Your task to perform on an android device: Open Reddit.com Image 0: 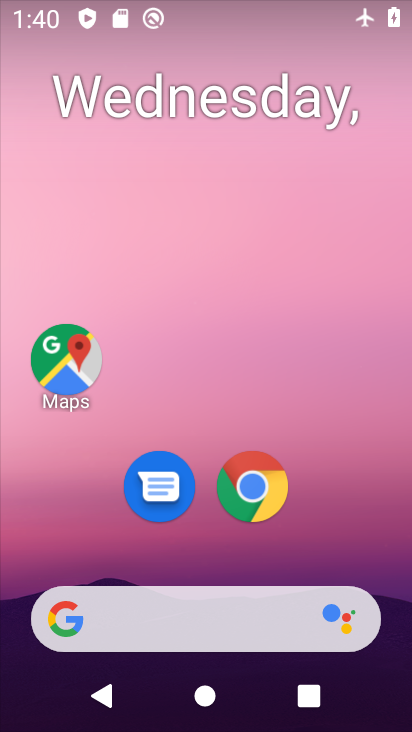
Step 0: click (247, 618)
Your task to perform on an android device: Open Reddit.com Image 1: 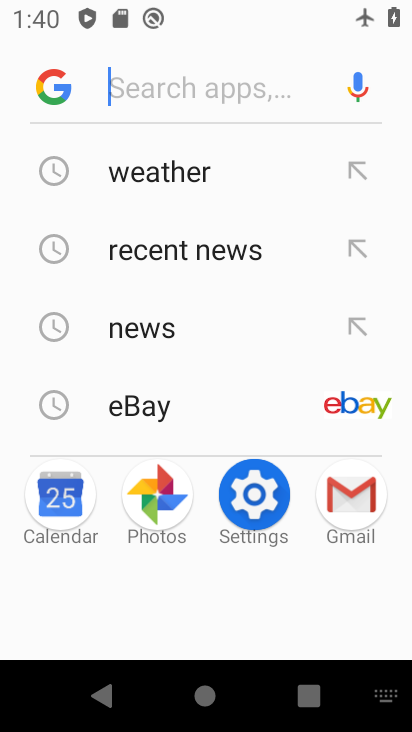
Step 1: type "reddit.com"
Your task to perform on an android device: Open Reddit.com Image 2: 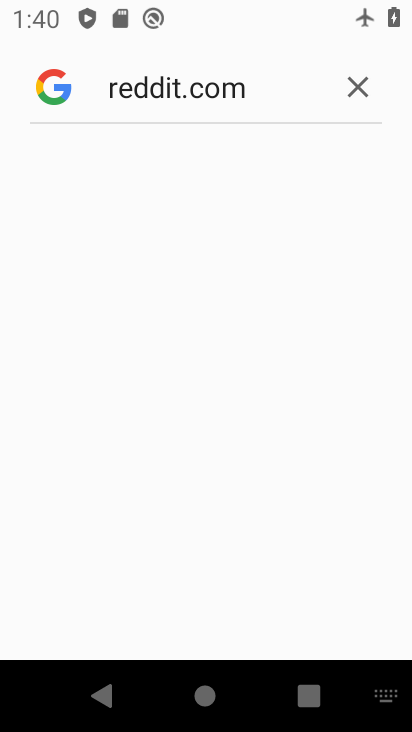
Step 2: task complete